Your task to perform on an android device: turn off wifi Image 0: 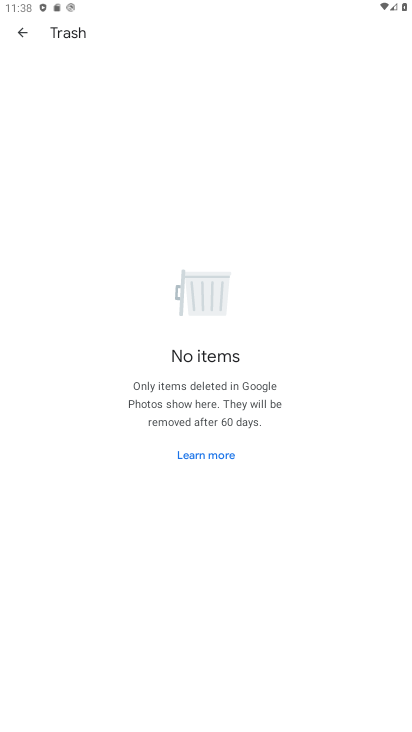
Step 0: press home button
Your task to perform on an android device: turn off wifi Image 1: 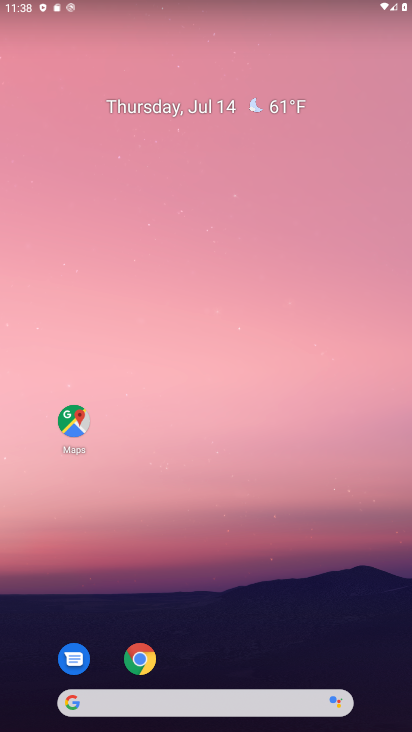
Step 1: drag from (217, 640) to (221, 250)
Your task to perform on an android device: turn off wifi Image 2: 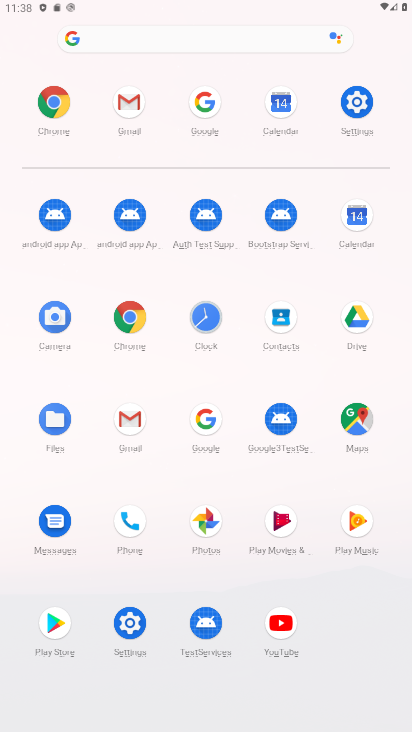
Step 2: click (364, 89)
Your task to perform on an android device: turn off wifi Image 3: 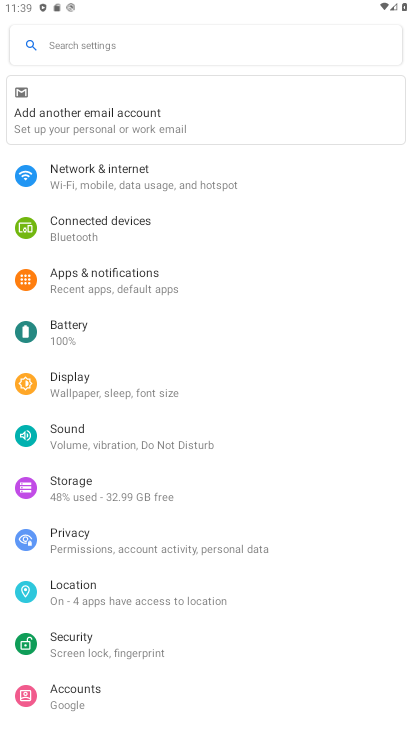
Step 3: click (112, 171)
Your task to perform on an android device: turn off wifi Image 4: 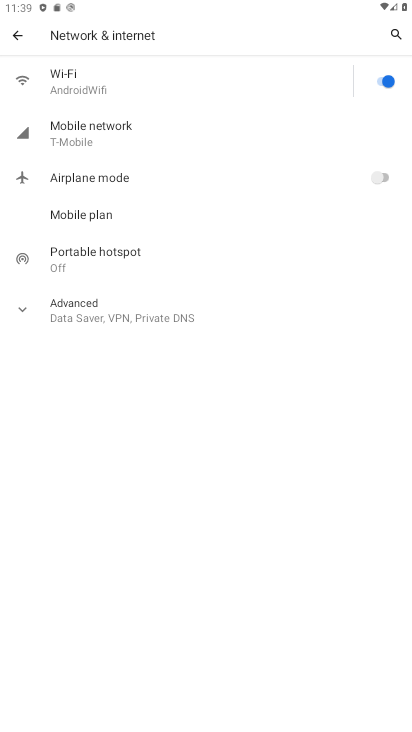
Step 4: click (394, 75)
Your task to perform on an android device: turn off wifi Image 5: 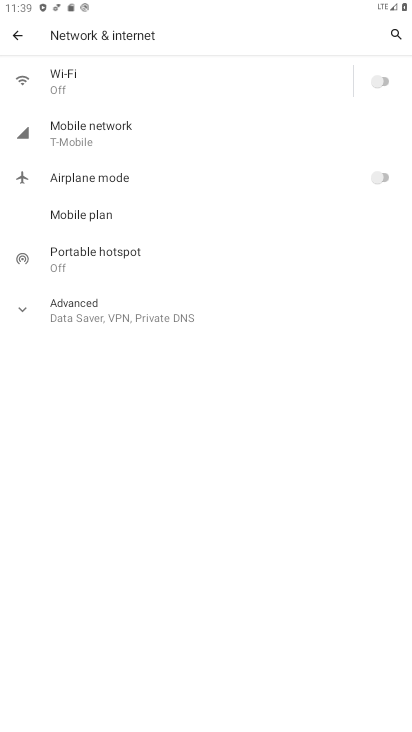
Step 5: task complete